Your task to perform on an android device: Go to Maps Image 0: 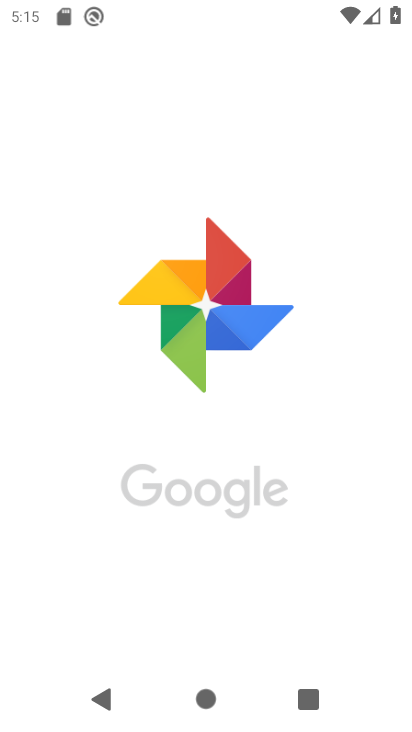
Step 0: drag from (337, 486) to (316, 100)
Your task to perform on an android device: Go to Maps Image 1: 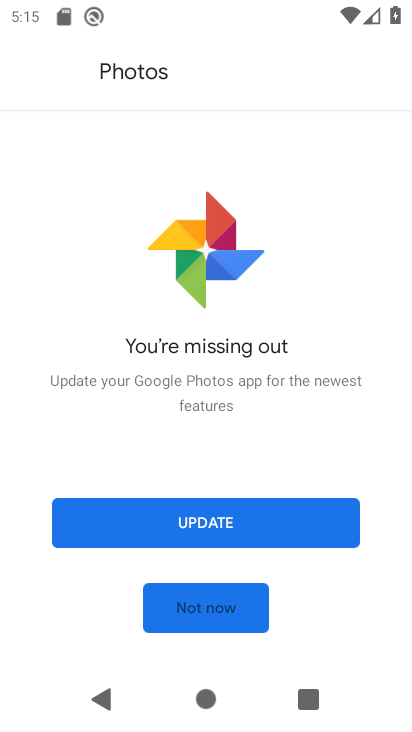
Step 1: press home button
Your task to perform on an android device: Go to Maps Image 2: 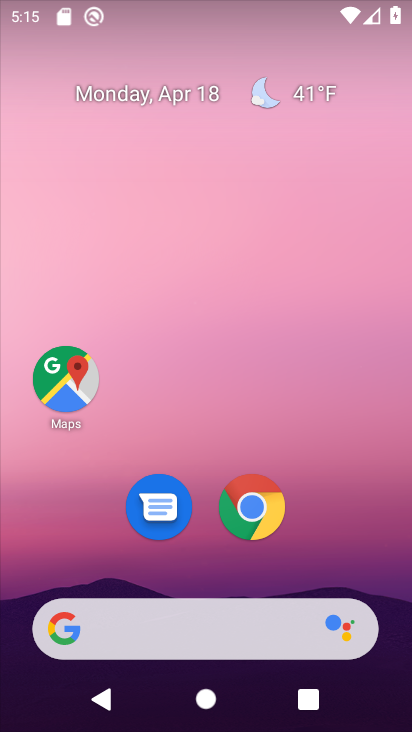
Step 2: drag from (293, 563) to (277, 0)
Your task to perform on an android device: Go to Maps Image 3: 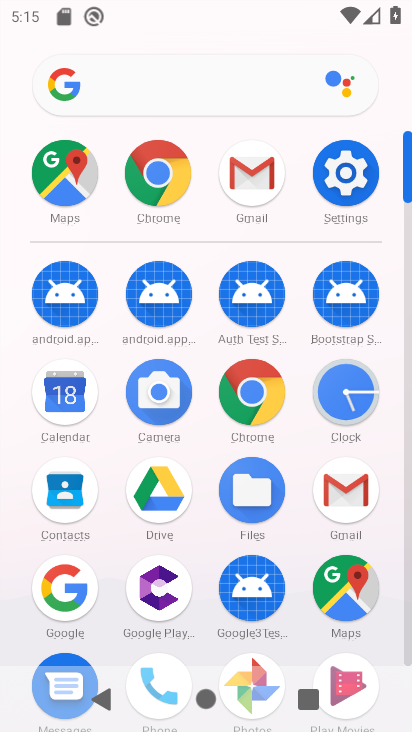
Step 3: drag from (307, 599) to (277, 228)
Your task to perform on an android device: Go to Maps Image 4: 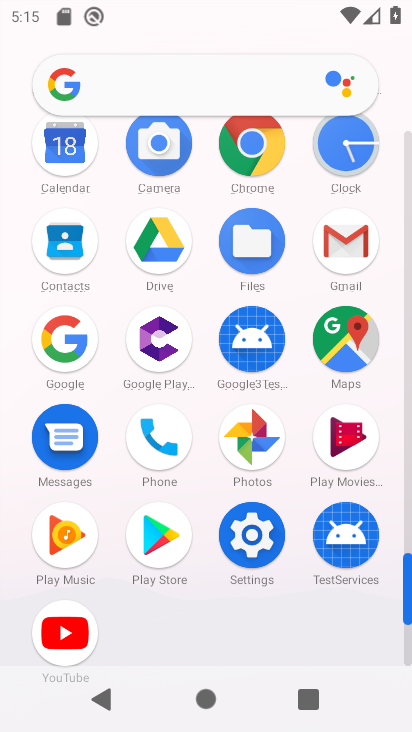
Step 4: click (352, 361)
Your task to perform on an android device: Go to Maps Image 5: 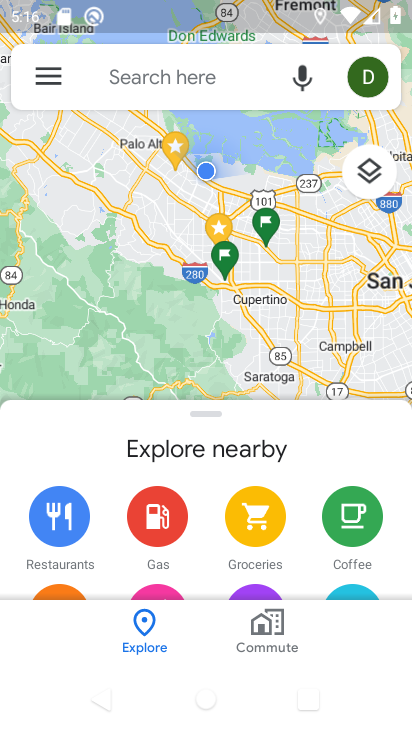
Step 5: task complete